Your task to perform on an android device: Go to Reddit.com Image 0: 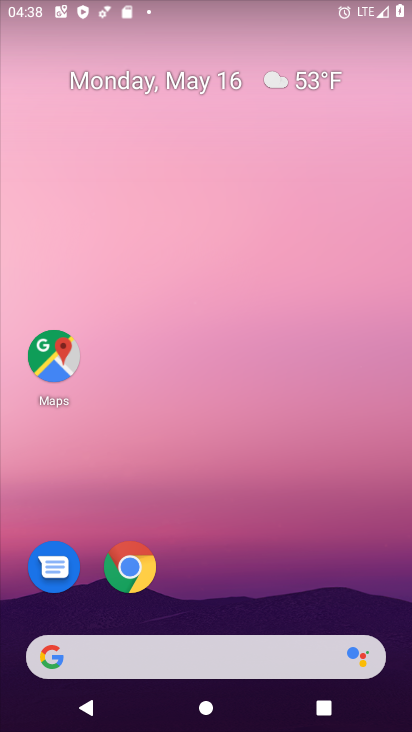
Step 0: drag from (311, 506) to (302, 68)
Your task to perform on an android device: Go to Reddit.com Image 1: 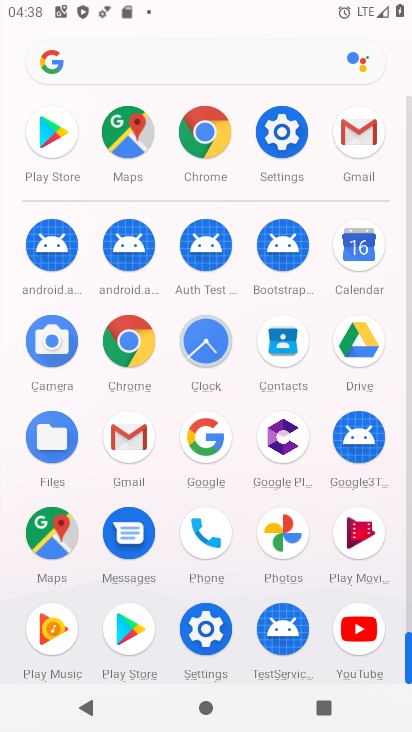
Step 1: click (118, 337)
Your task to perform on an android device: Go to Reddit.com Image 2: 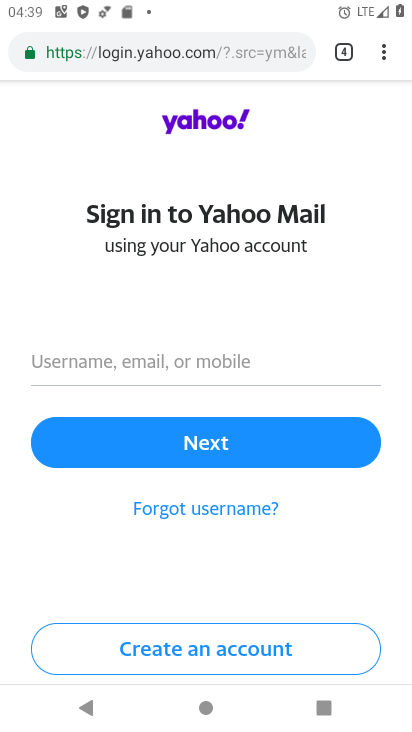
Step 2: click (344, 48)
Your task to perform on an android device: Go to Reddit.com Image 3: 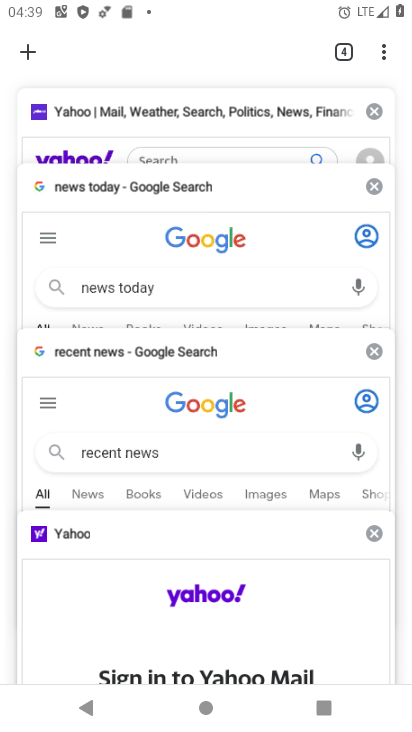
Step 3: click (24, 54)
Your task to perform on an android device: Go to Reddit.com Image 4: 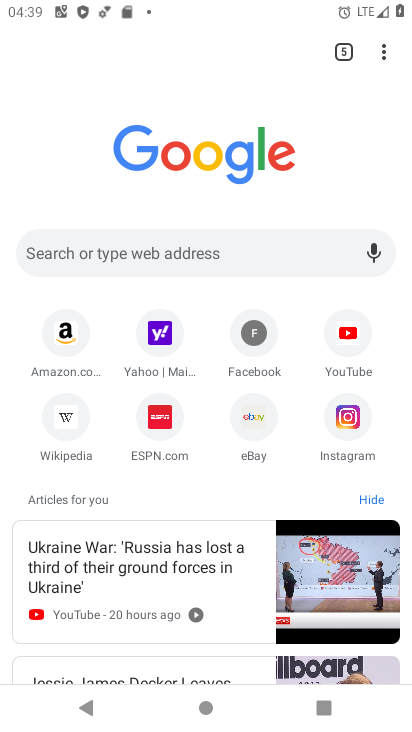
Step 4: click (230, 250)
Your task to perform on an android device: Go to Reddit.com Image 5: 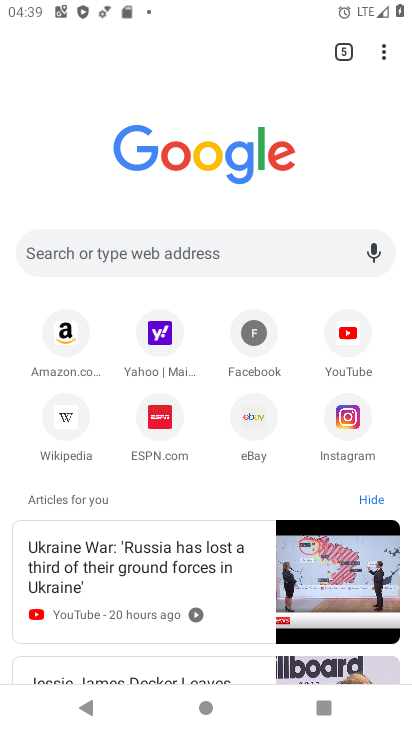
Step 5: click (230, 250)
Your task to perform on an android device: Go to Reddit.com Image 6: 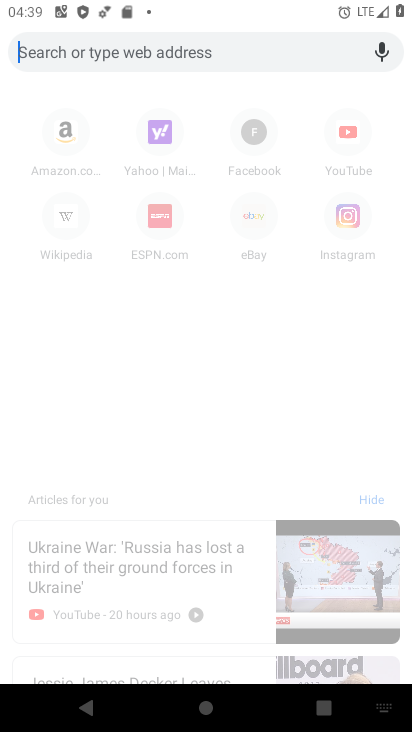
Step 6: type "reddit.com"
Your task to perform on an android device: Go to Reddit.com Image 7: 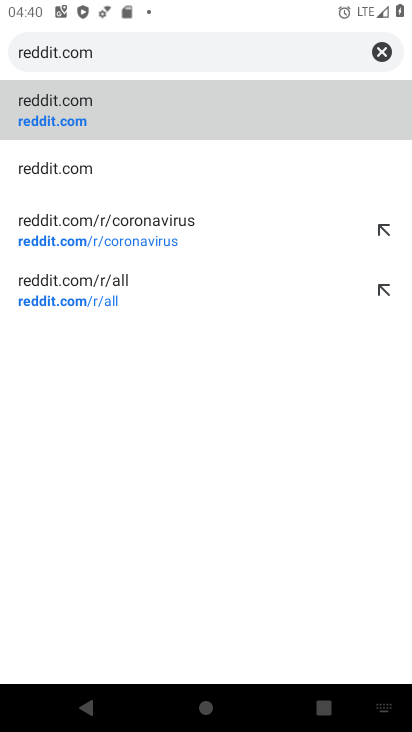
Step 7: click (101, 103)
Your task to perform on an android device: Go to Reddit.com Image 8: 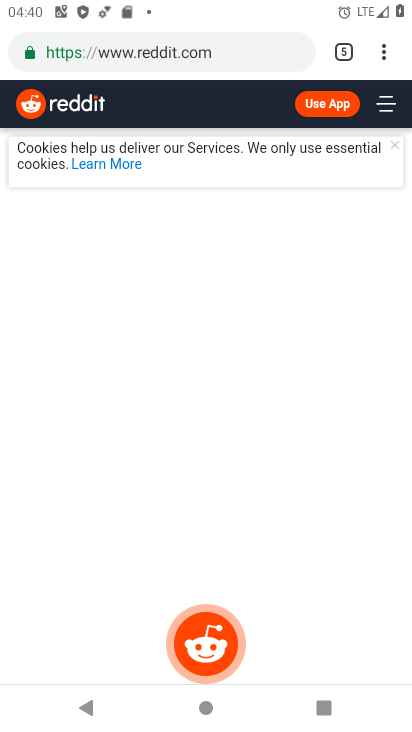
Step 8: task complete